Your task to perform on an android device: open a bookmark in the chrome app Image 0: 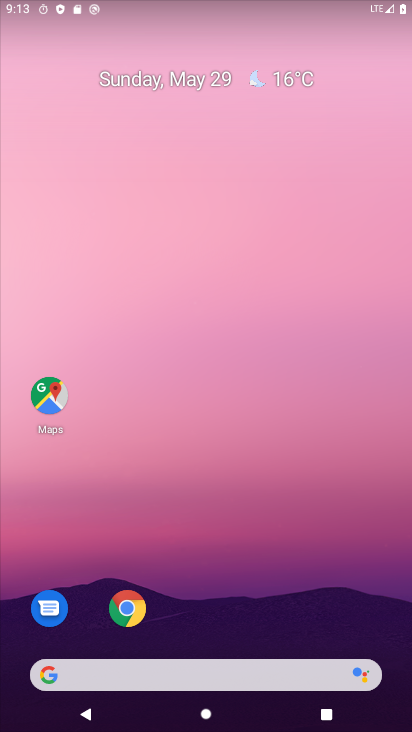
Step 0: click (125, 618)
Your task to perform on an android device: open a bookmark in the chrome app Image 1: 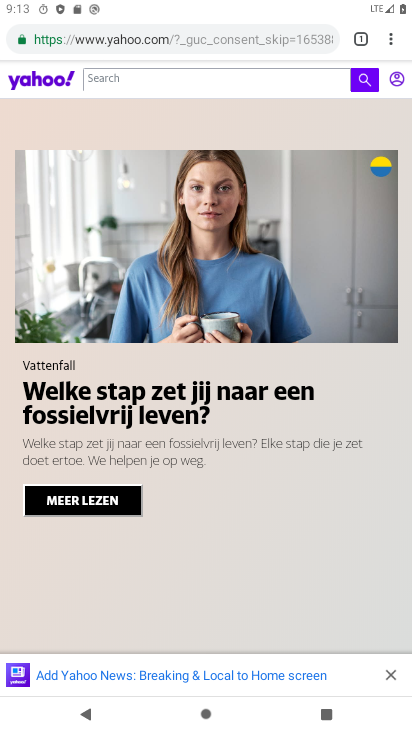
Step 1: click (395, 40)
Your task to perform on an android device: open a bookmark in the chrome app Image 2: 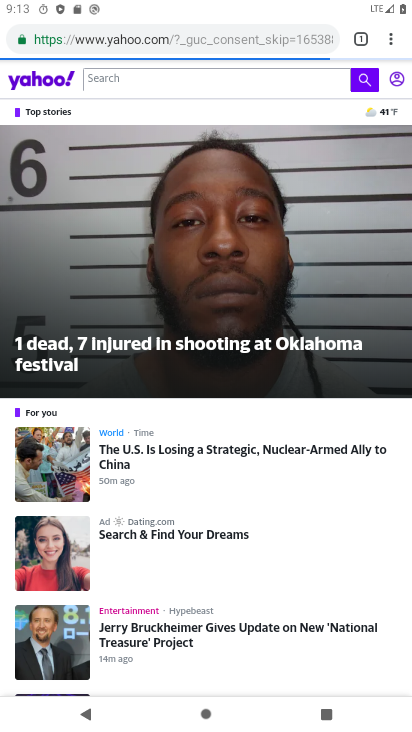
Step 2: click (391, 43)
Your task to perform on an android device: open a bookmark in the chrome app Image 3: 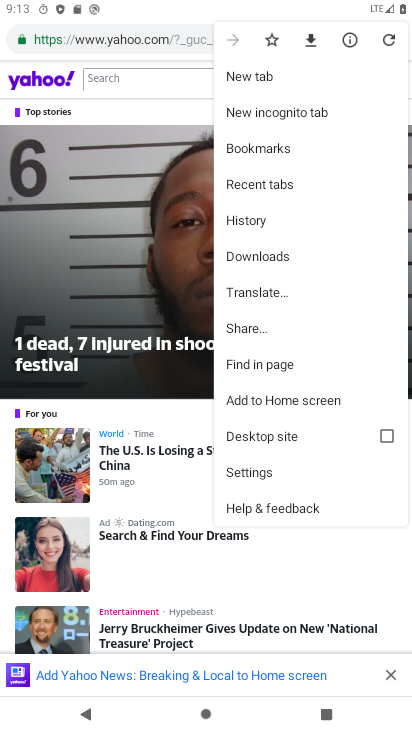
Step 3: click (252, 161)
Your task to perform on an android device: open a bookmark in the chrome app Image 4: 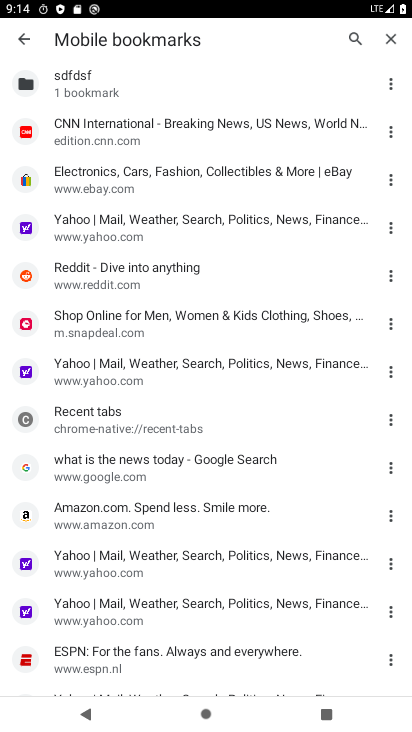
Step 4: click (103, 128)
Your task to perform on an android device: open a bookmark in the chrome app Image 5: 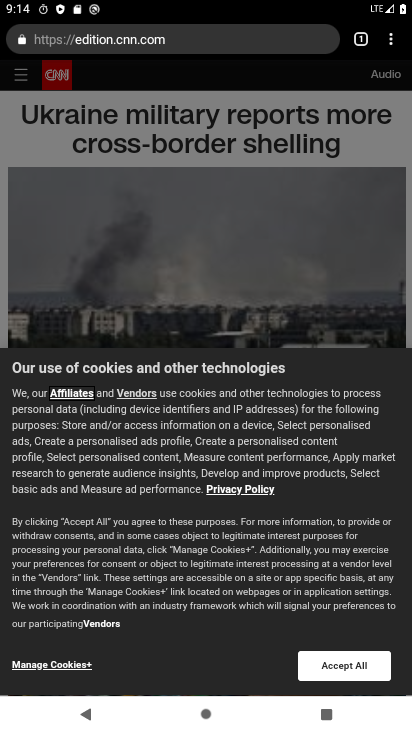
Step 5: task complete